Your task to perform on an android device: manage bookmarks in the chrome app Image 0: 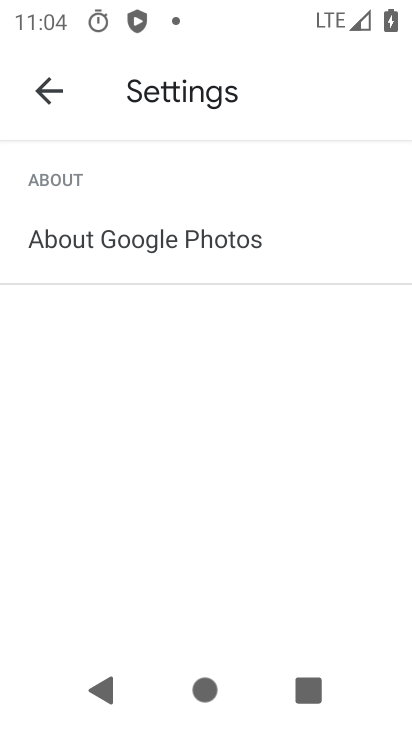
Step 0: press home button
Your task to perform on an android device: manage bookmarks in the chrome app Image 1: 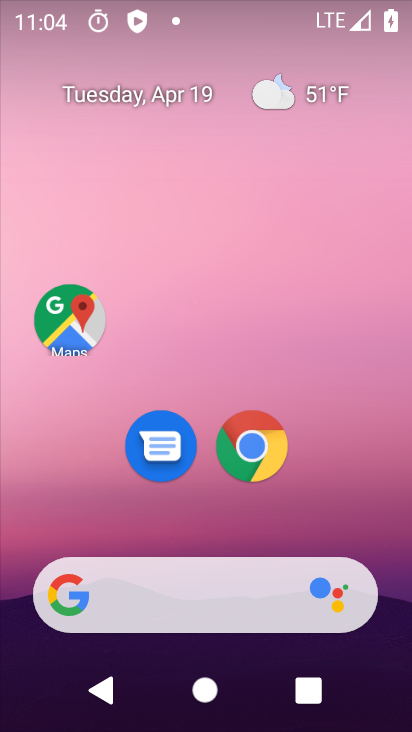
Step 1: click (248, 445)
Your task to perform on an android device: manage bookmarks in the chrome app Image 2: 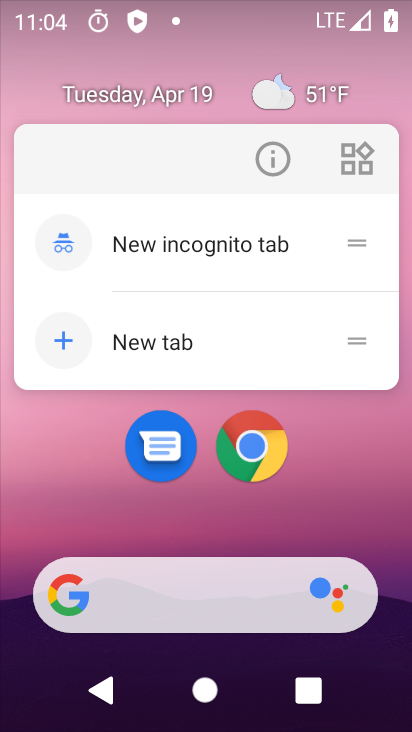
Step 2: click (251, 453)
Your task to perform on an android device: manage bookmarks in the chrome app Image 3: 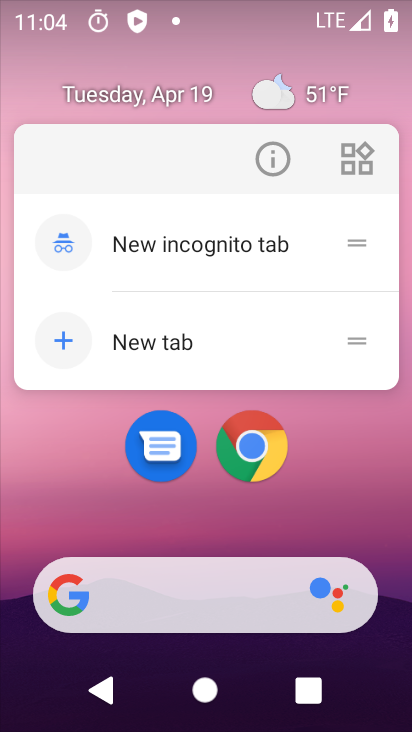
Step 3: click (251, 453)
Your task to perform on an android device: manage bookmarks in the chrome app Image 4: 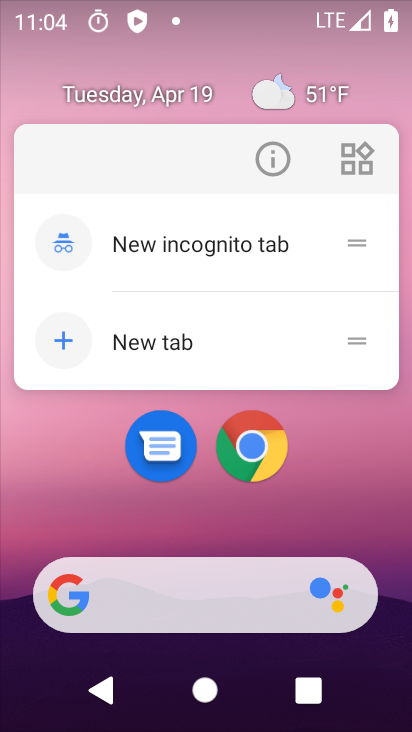
Step 4: click (251, 453)
Your task to perform on an android device: manage bookmarks in the chrome app Image 5: 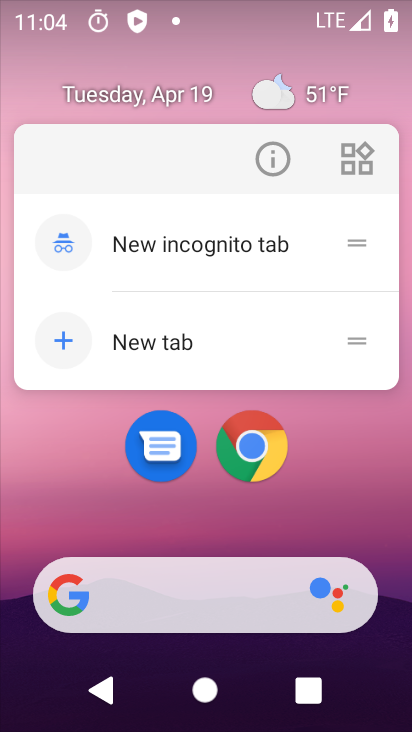
Step 5: click (251, 453)
Your task to perform on an android device: manage bookmarks in the chrome app Image 6: 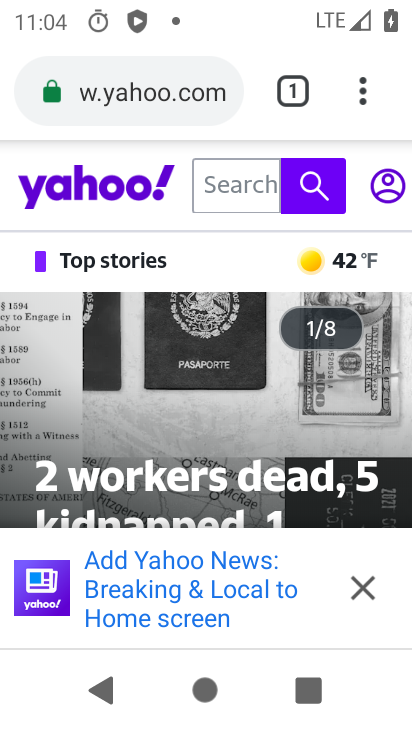
Step 6: click (360, 90)
Your task to perform on an android device: manage bookmarks in the chrome app Image 7: 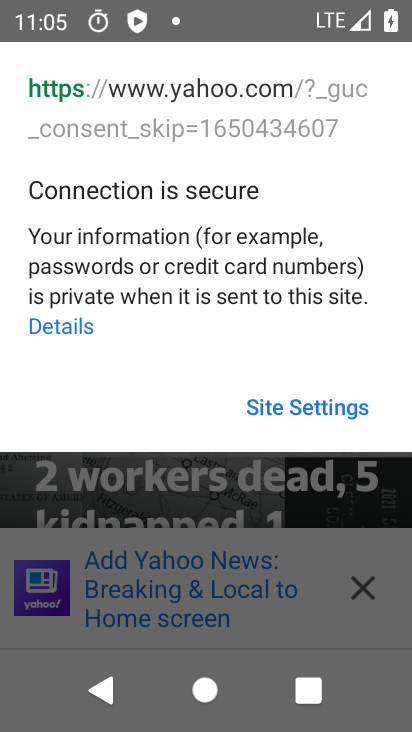
Step 7: click (291, 409)
Your task to perform on an android device: manage bookmarks in the chrome app Image 8: 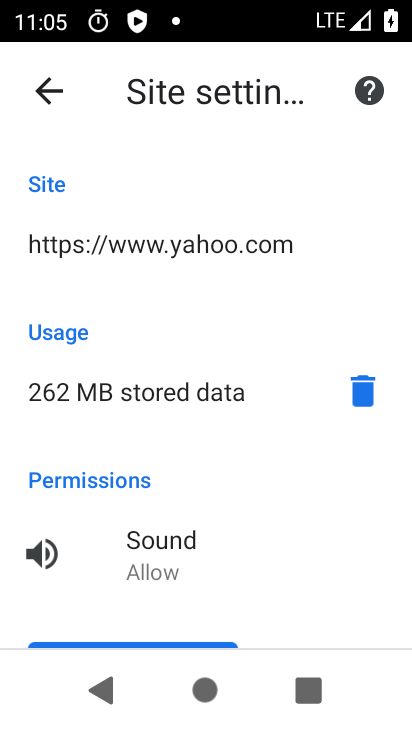
Step 8: click (50, 94)
Your task to perform on an android device: manage bookmarks in the chrome app Image 9: 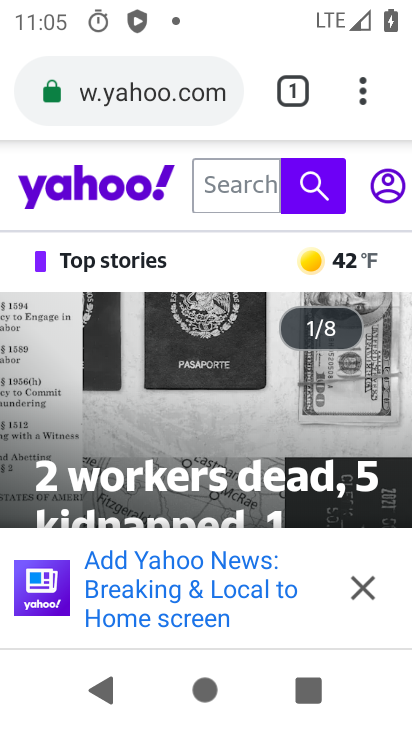
Step 9: click (360, 85)
Your task to perform on an android device: manage bookmarks in the chrome app Image 10: 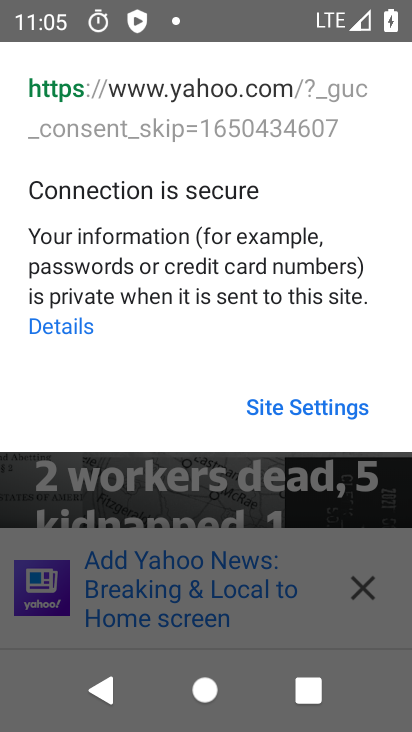
Step 10: press back button
Your task to perform on an android device: manage bookmarks in the chrome app Image 11: 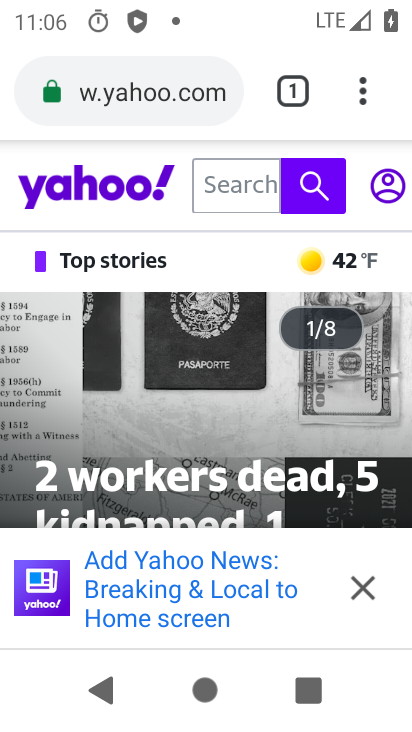
Step 11: click (361, 77)
Your task to perform on an android device: manage bookmarks in the chrome app Image 12: 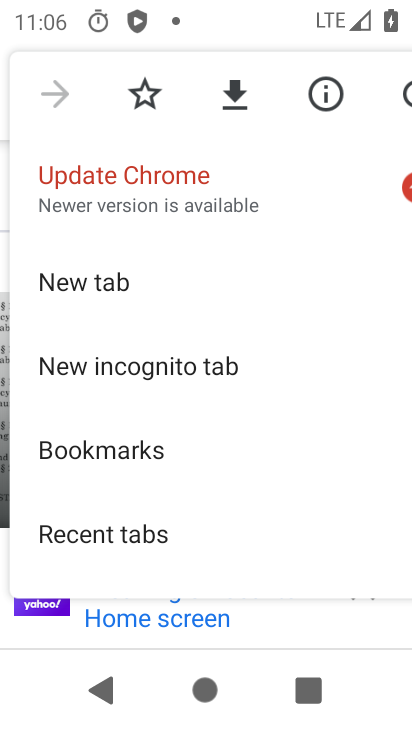
Step 12: click (210, 527)
Your task to perform on an android device: manage bookmarks in the chrome app Image 13: 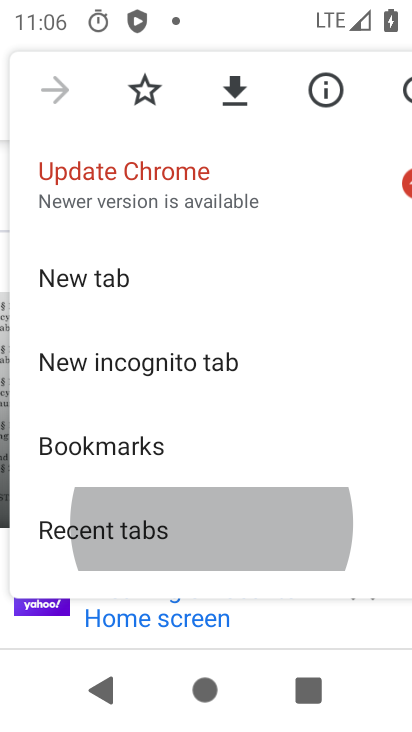
Step 13: click (146, 451)
Your task to perform on an android device: manage bookmarks in the chrome app Image 14: 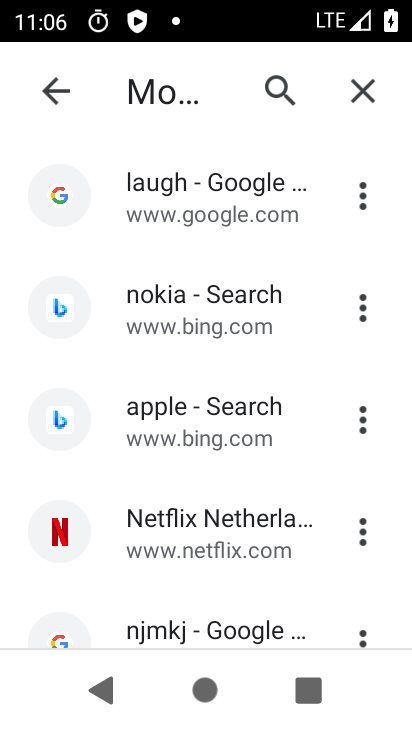
Step 14: click (365, 422)
Your task to perform on an android device: manage bookmarks in the chrome app Image 15: 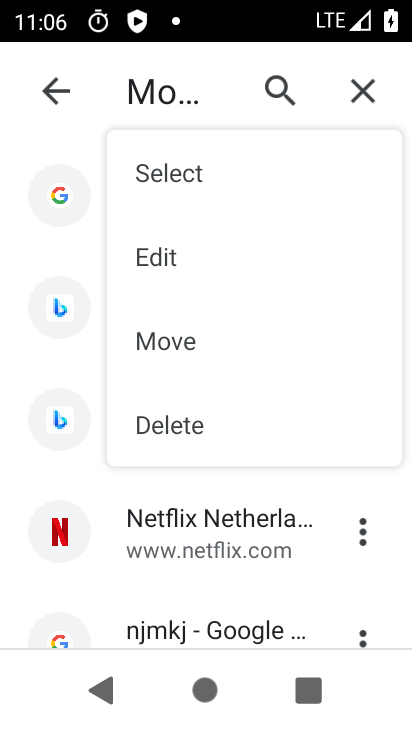
Step 15: click (139, 424)
Your task to perform on an android device: manage bookmarks in the chrome app Image 16: 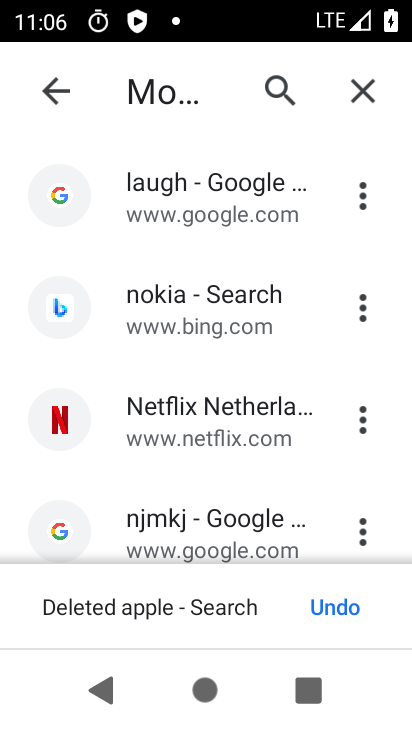
Step 16: task complete